Your task to perform on an android device: Clear all items from cart on walmart.com. Image 0: 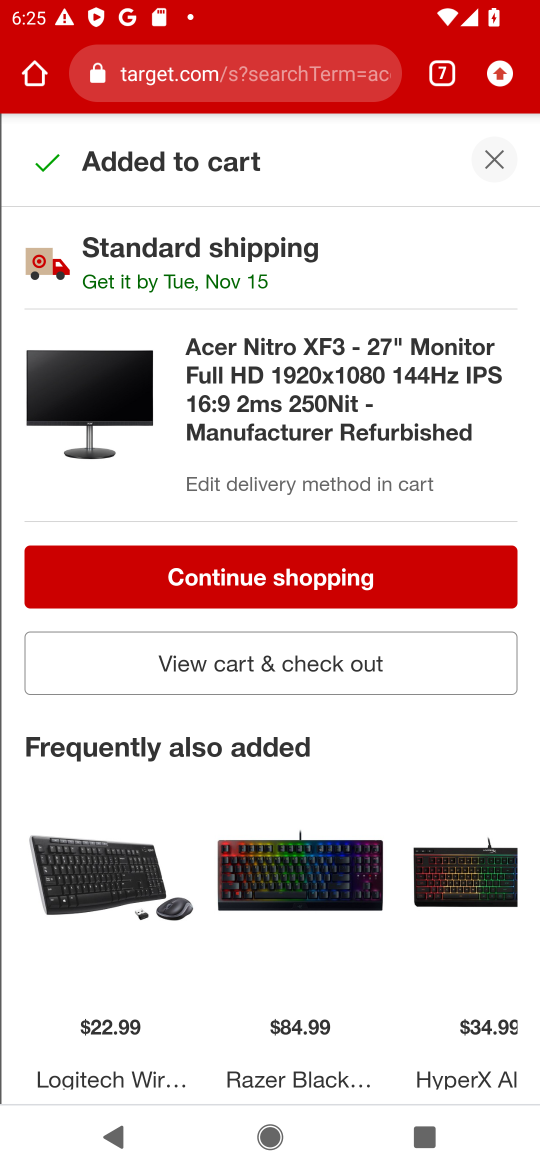
Step 0: press home button
Your task to perform on an android device: Clear all items from cart on walmart.com. Image 1: 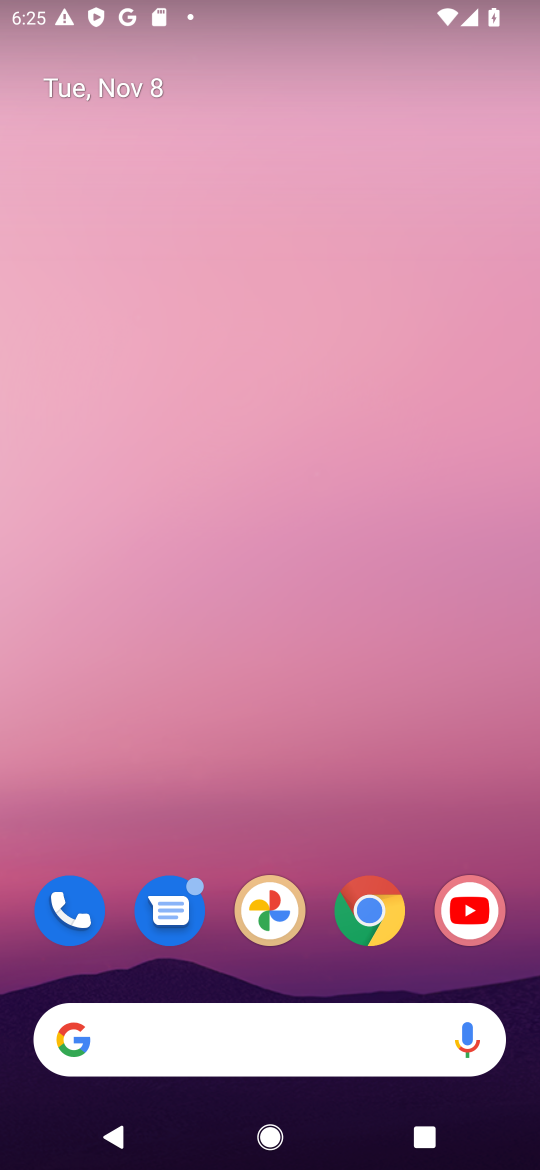
Step 1: click (369, 920)
Your task to perform on an android device: Clear all items from cart on walmart.com. Image 2: 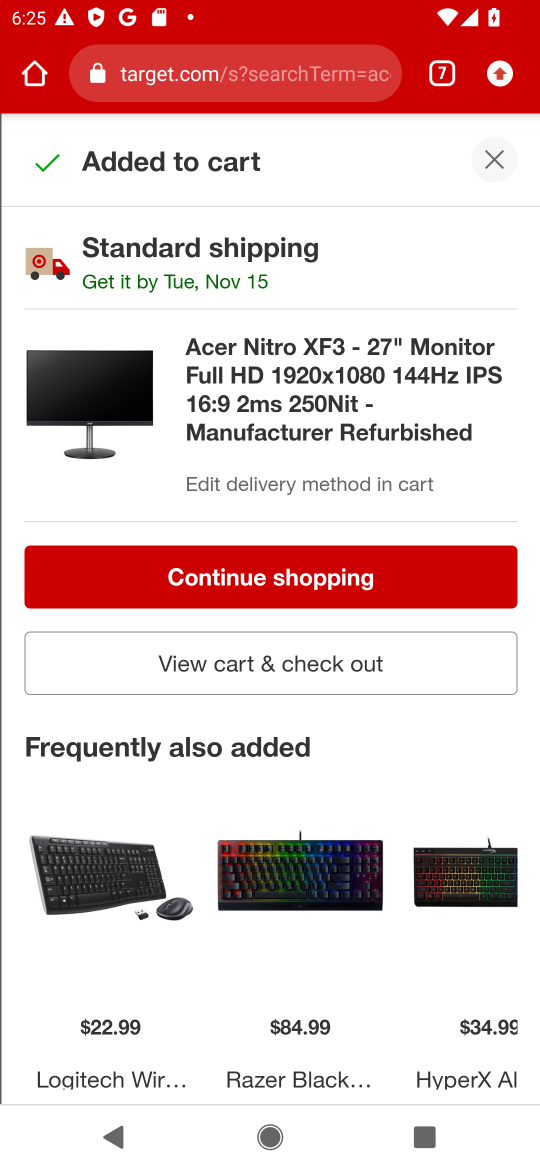
Step 2: click (443, 66)
Your task to perform on an android device: Clear all items from cart on walmart.com. Image 3: 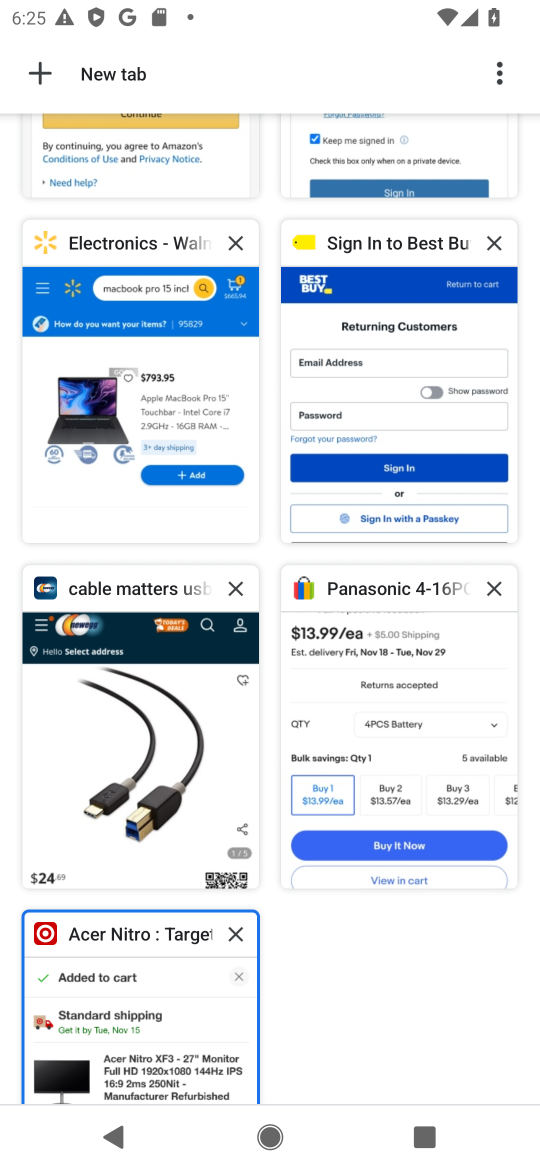
Step 3: click (180, 355)
Your task to perform on an android device: Clear all items from cart on walmart.com. Image 4: 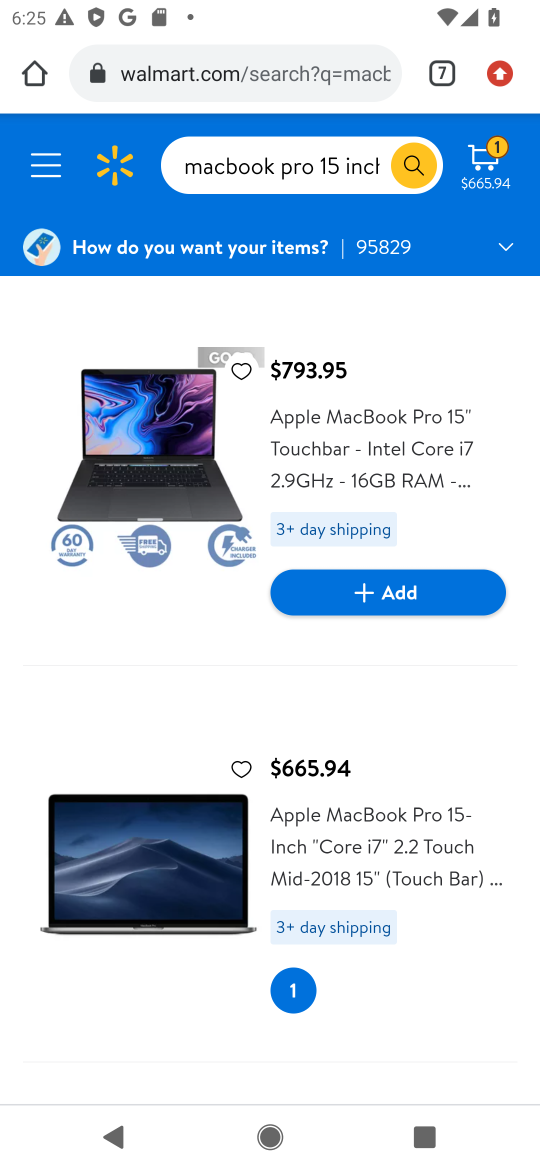
Step 4: click (491, 153)
Your task to perform on an android device: Clear all items from cart on walmart.com. Image 5: 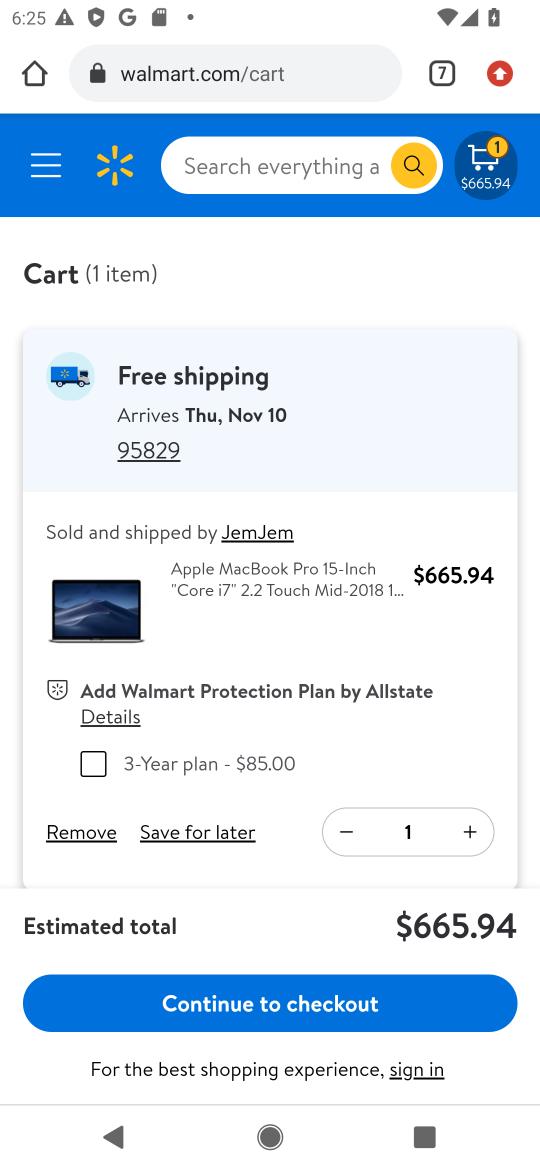
Step 5: click (88, 823)
Your task to perform on an android device: Clear all items from cart on walmart.com. Image 6: 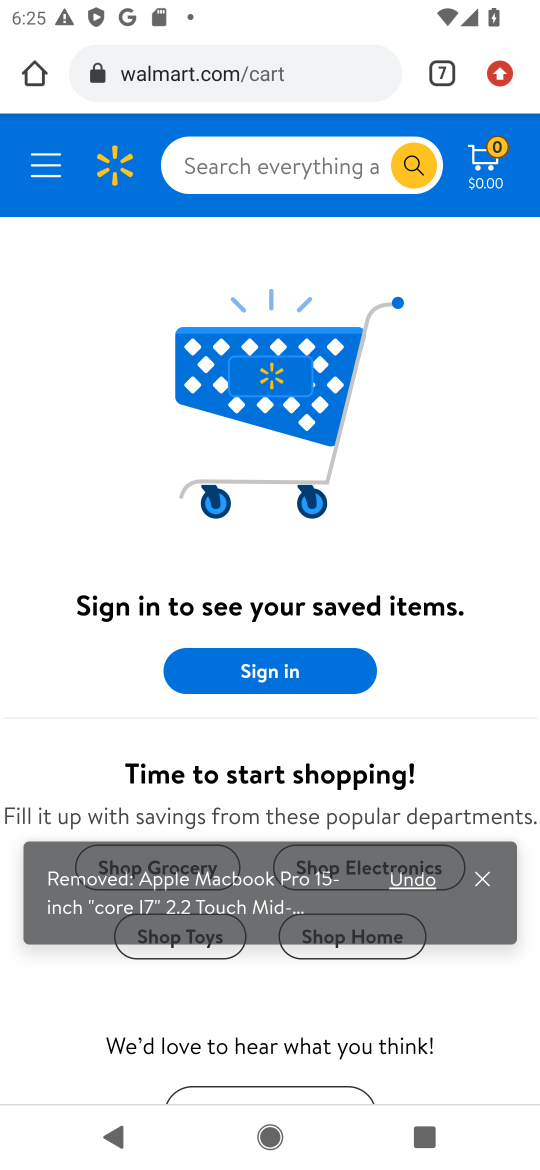
Step 6: task complete